Your task to perform on an android device: turn off airplane mode Image 0: 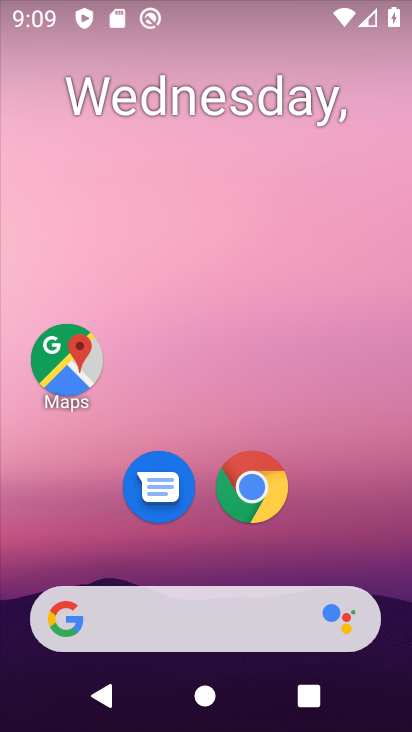
Step 0: drag from (245, 618) to (400, 113)
Your task to perform on an android device: turn off airplane mode Image 1: 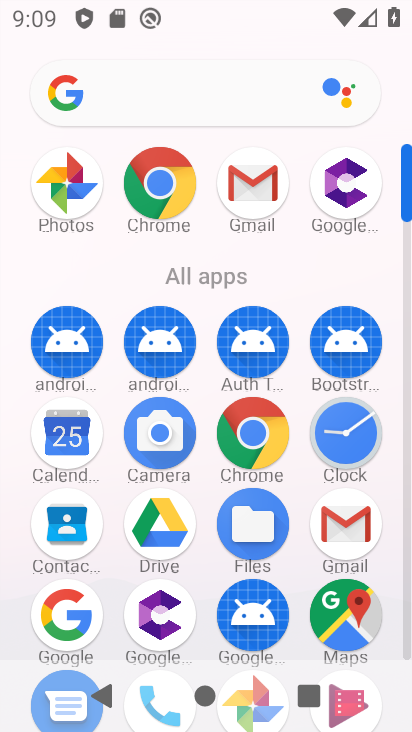
Step 1: drag from (226, 552) to (324, 6)
Your task to perform on an android device: turn off airplane mode Image 2: 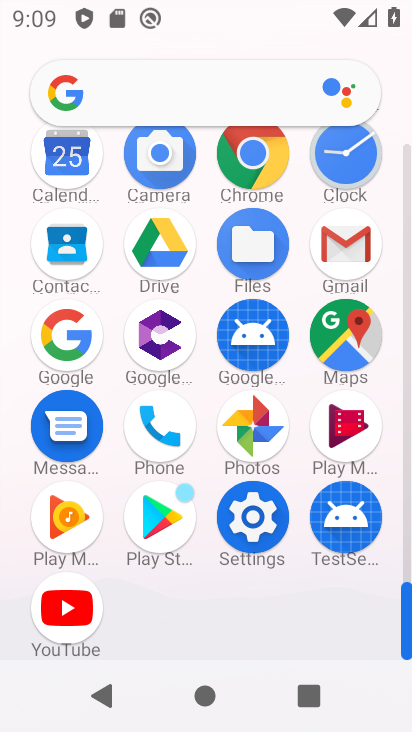
Step 2: click (259, 513)
Your task to perform on an android device: turn off airplane mode Image 3: 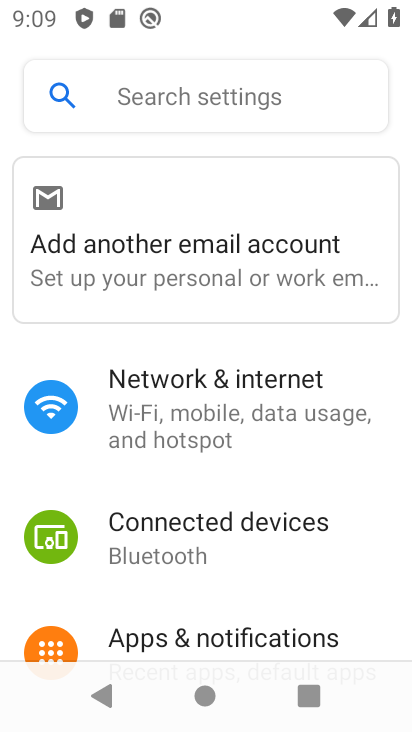
Step 3: click (197, 408)
Your task to perform on an android device: turn off airplane mode Image 4: 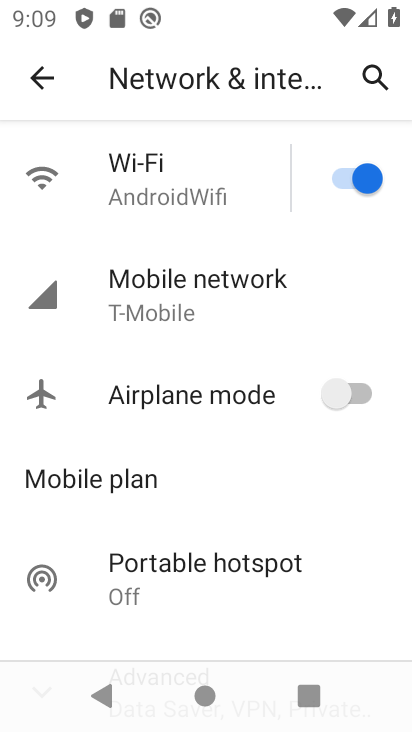
Step 4: task complete